Your task to perform on an android device: Is it going to rain today? Image 0: 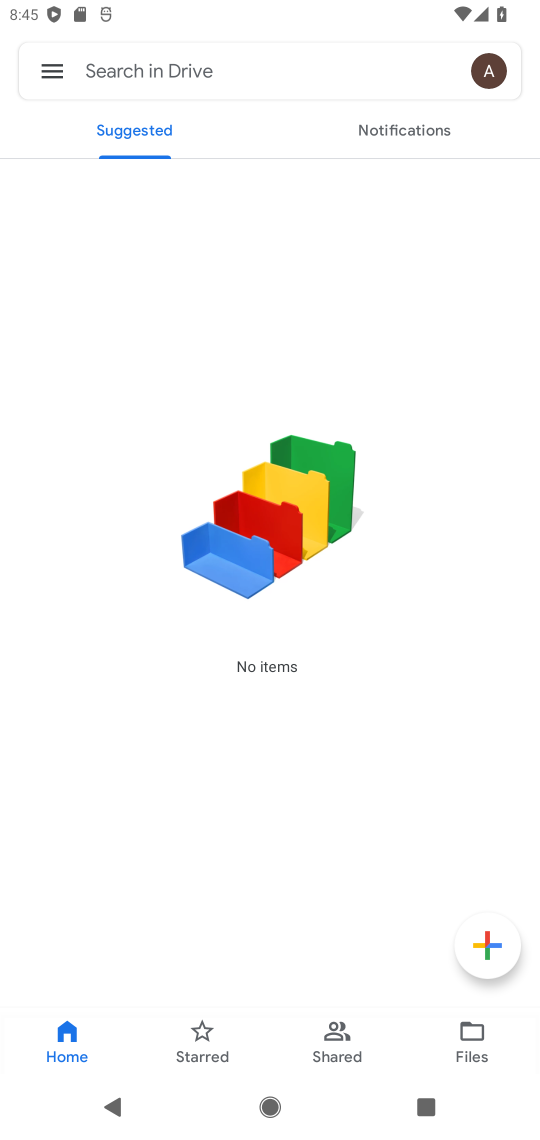
Step 0: press home button
Your task to perform on an android device: Is it going to rain today? Image 1: 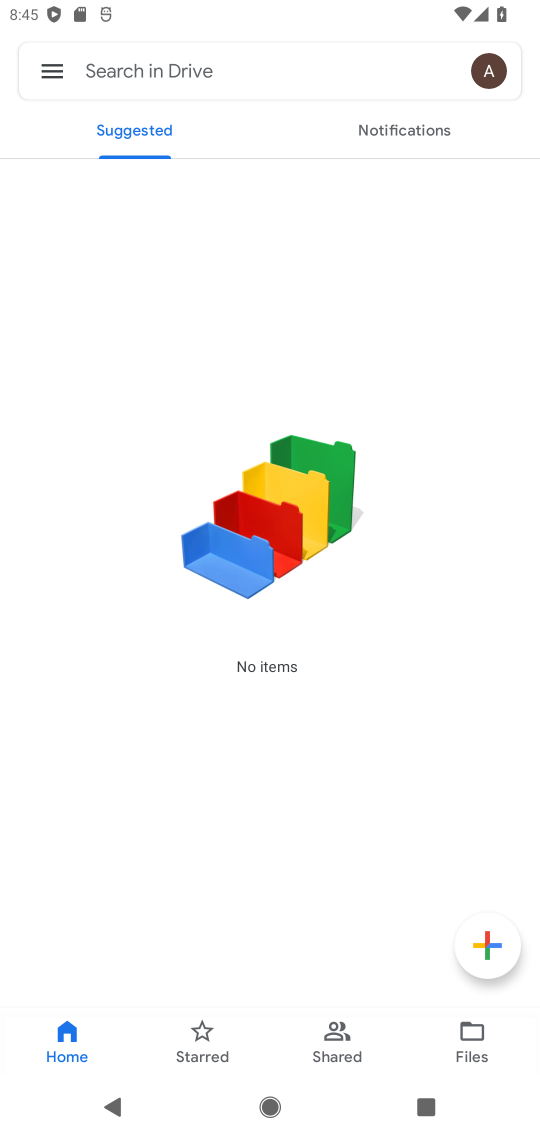
Step 1: press home button
Your task to perform on an android device: Is it going to rain today? Image 2: 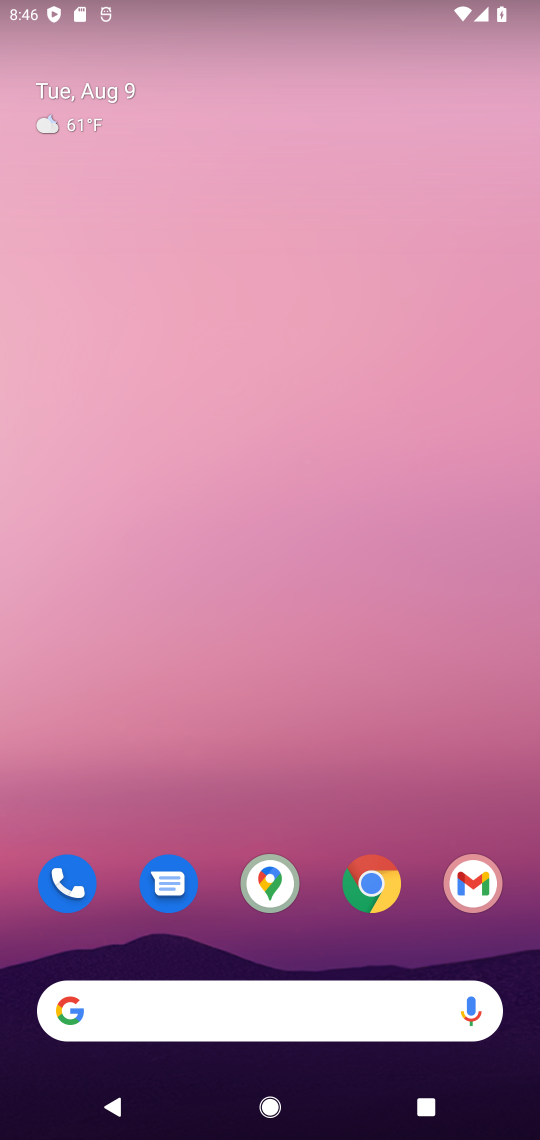
Step 2: drag from (373, 764) to (342, 25)
Your task to perform on an android device: Is it going to rain today? Image 3: 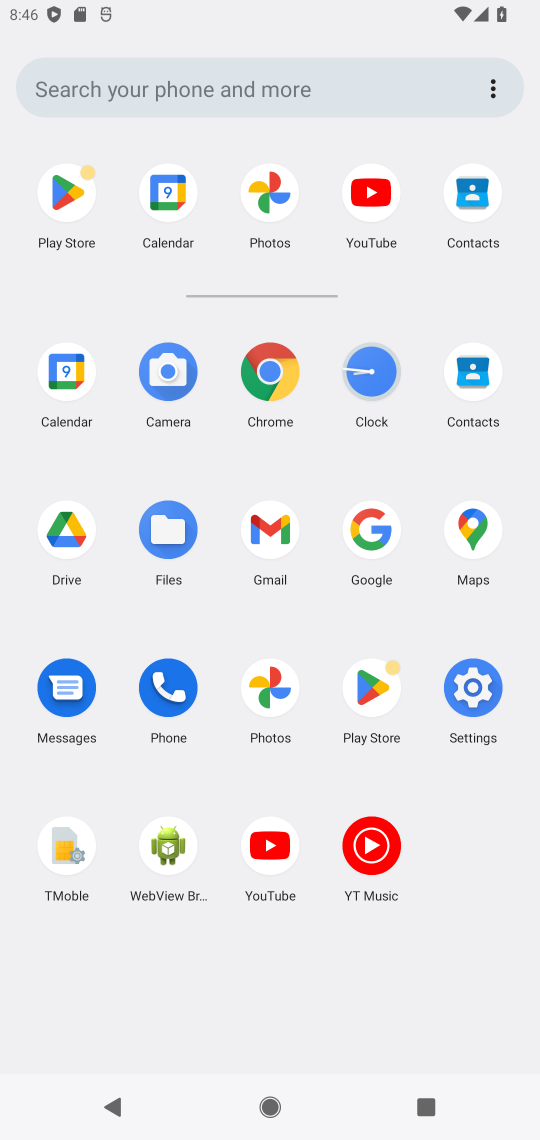
Step 3: click (277, 364)
Your task to perform on an android device: Is it going to rain today? Image 4: 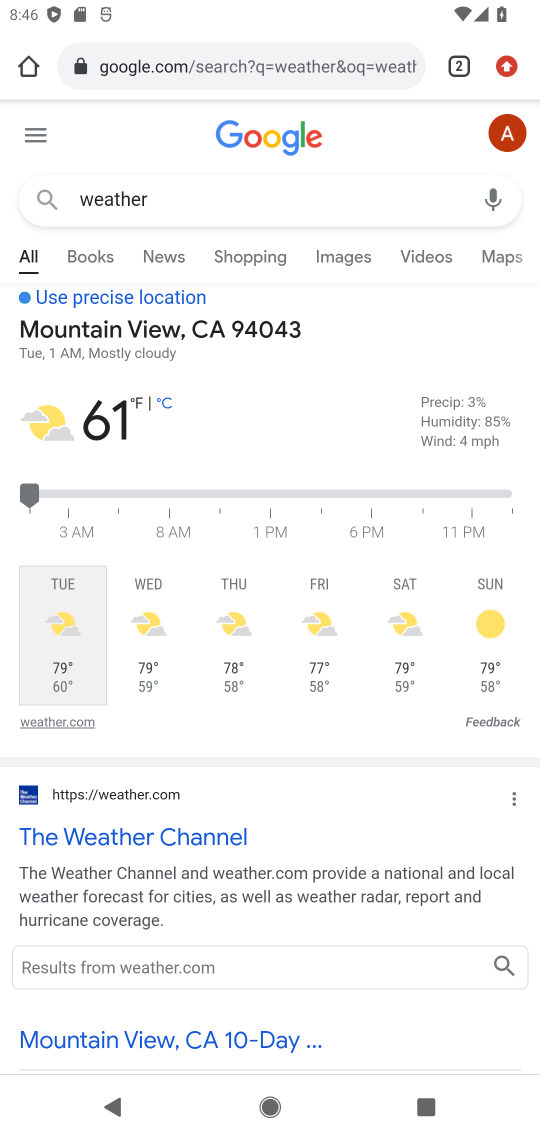
Step 4: task complete